Your task to perform on an android device: Open calendar and show me the second week of next month Image 0: 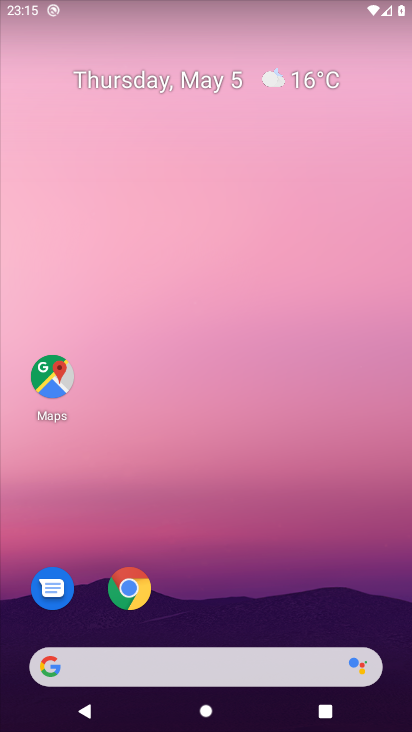
Step 0: drag from (226, 556) to (190, 168)
Your task to perform on an android device: Open calendar and show me the second week of next month Image 1: 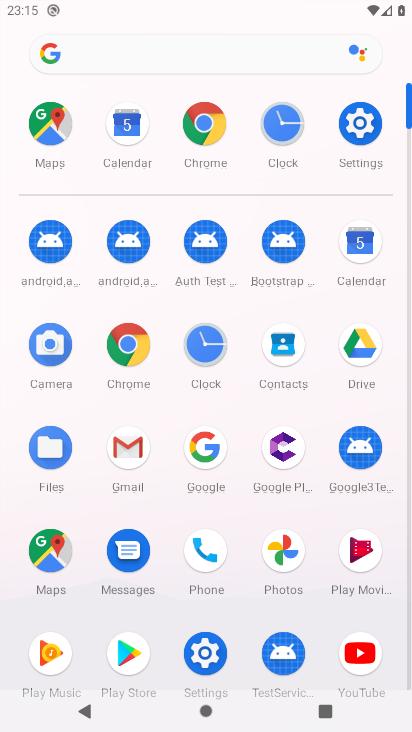
Step 1: click (366, 250)
Your task to perform on an android device: Open calendar and show me the second week of next month Image 2: 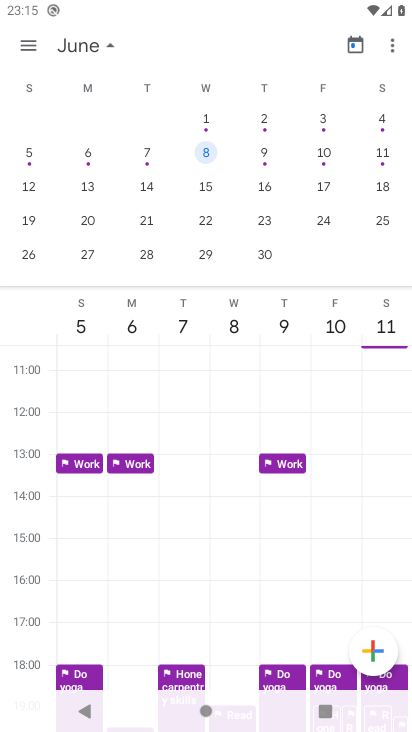
Step 2: click (209, 184)
Your task to perform on an android device: Open calendar and show me the second week of next month Image 3: 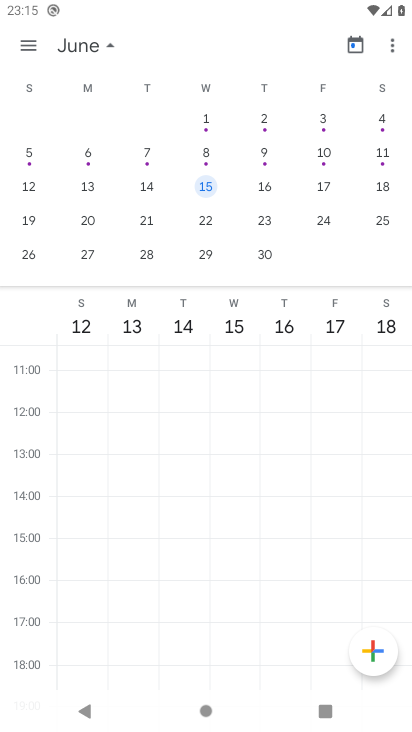
Step 3: task complete